Your task to perform on an android device: Play the last video I watched on Youtube Image 0: 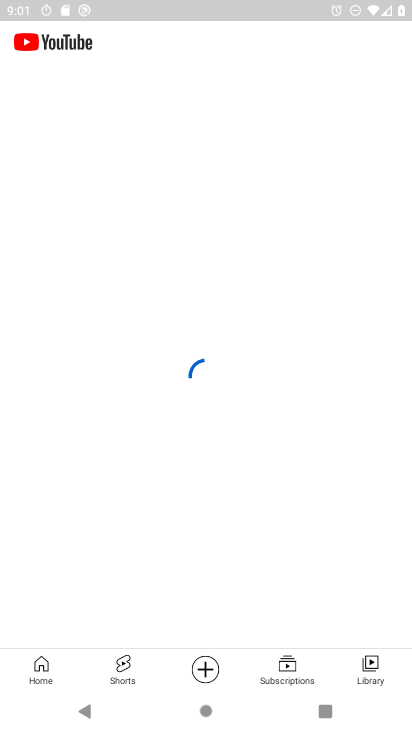
Step 0: click (204, 146)
Your task to perform on an android device: Play the last video I watched on Youtube Image 1: 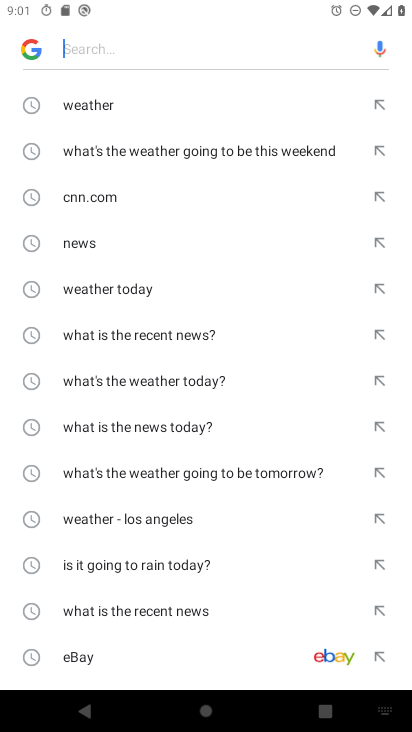
Step 1: press home button
Your task to perform on an android device: Play the last video I watched on Youtube Image 2: 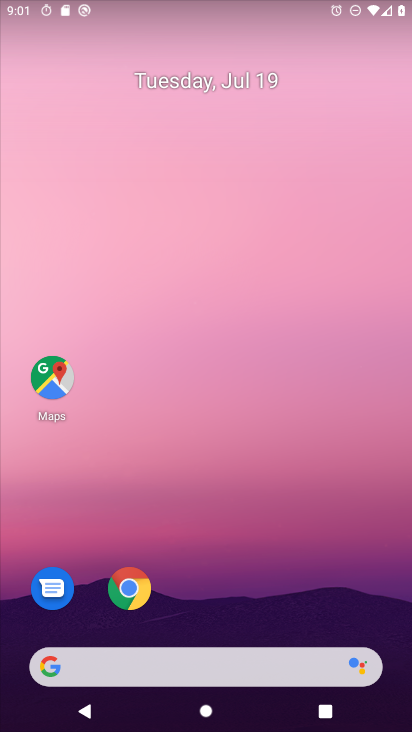
Step 2: drag from (253, 545) to (229, 117)
Your task to perform on an android device: Play the last video I watched on Youtube Image 3: 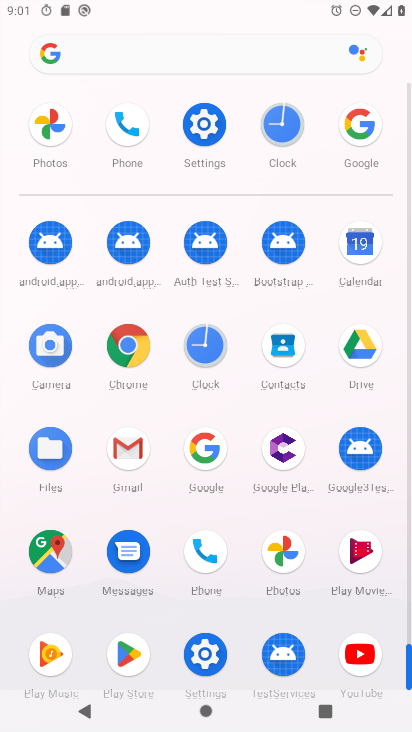
Step 3: click (352, 660)
Your task to perform on an android device: Play the last video I watched on Youtube Image 4: 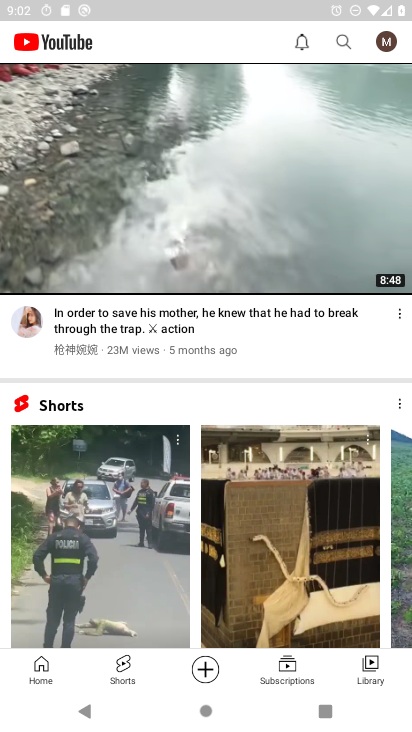
Step 4: click (375, 683)
Your task to perform on an android device: Play the last video I watched on Youtube Image 5: 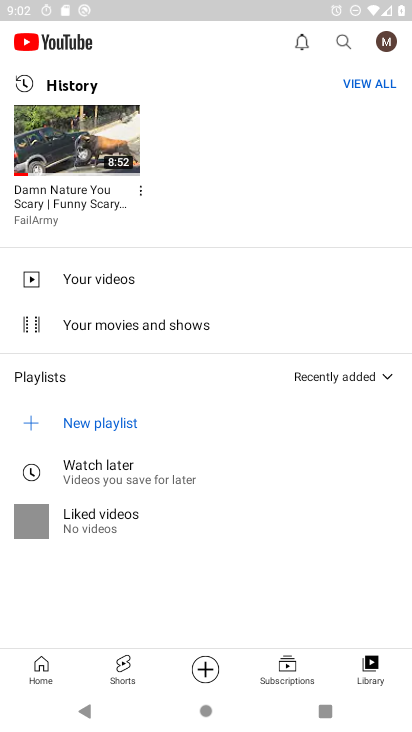
Step 5: click (100, 187)
Your task to perform on an android device: Play the last video I watched on Youtube Image 6: 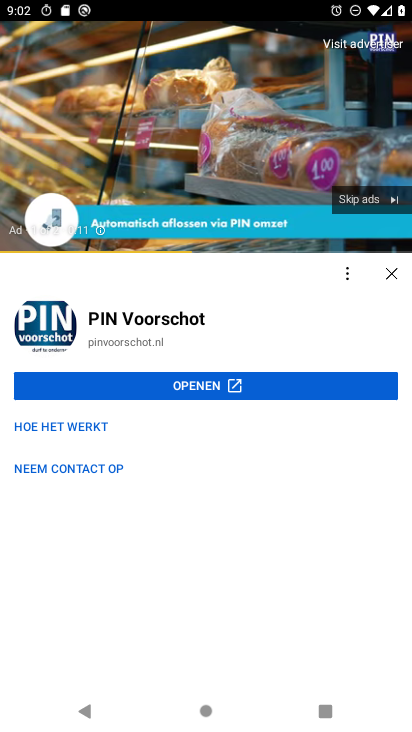
Step 6: task complete